Your task to perform on an android device: See recent photos Image 0: 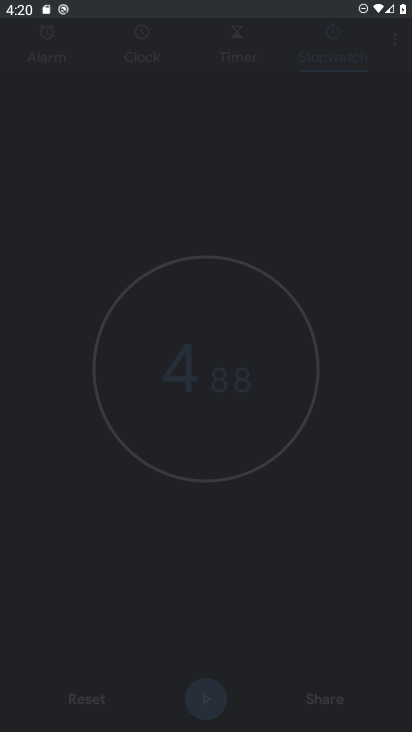
Step 0: drag from (273, 629) to (256, 139)
Your task to perform on an android device: See recent photos Image 1: 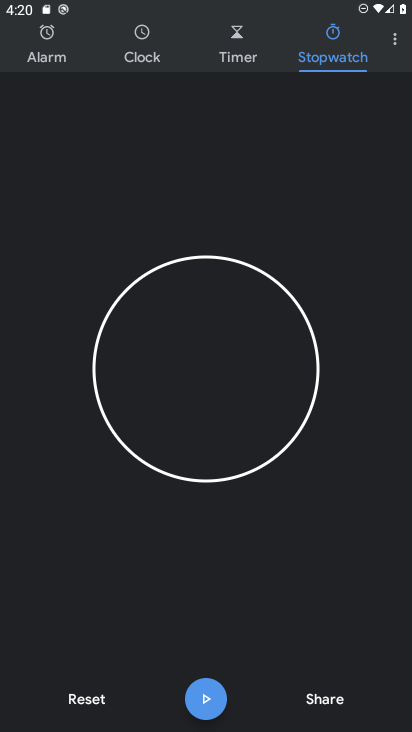
Step 1: press home button
Your task to perform on an android device: See recent photos Image 2: 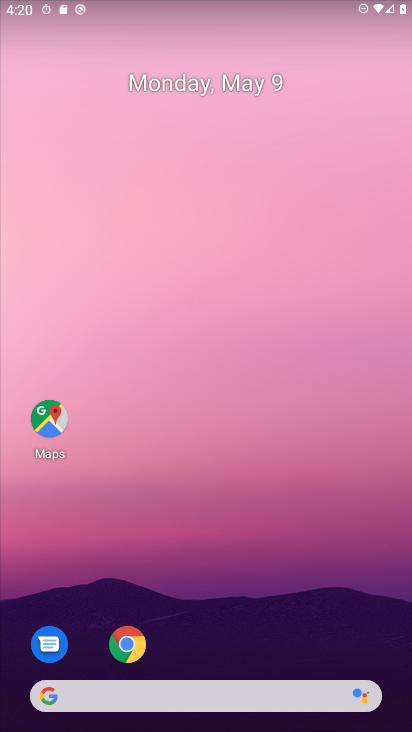
Step 2: drag from (254, 664) to (248, 113)
Your task to perform on an android device: See recent photos Image 3: 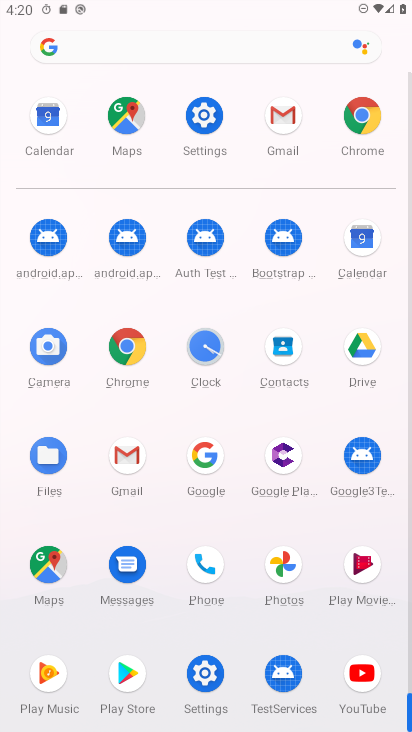
Step 3: click (308, 584)
Your task to perform on an android device: See recent photos Image 4: 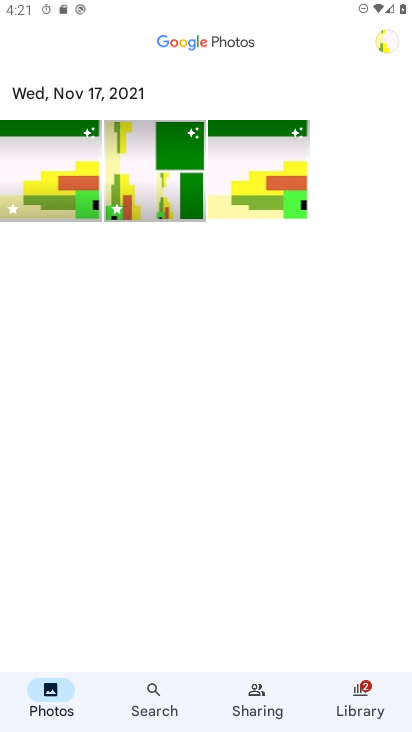
Step 4: click (372, 706)
Your task to perform on an android device: See recent photos Image 5: 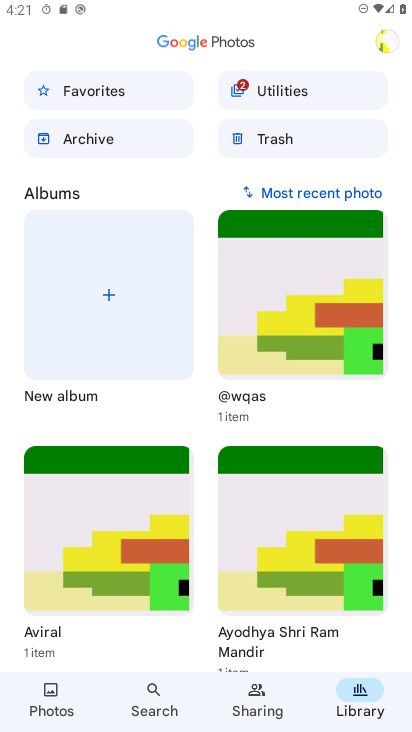
Step 5: task complete